Your task to perform on an android device: Open Chrome and go to settings Image 0: 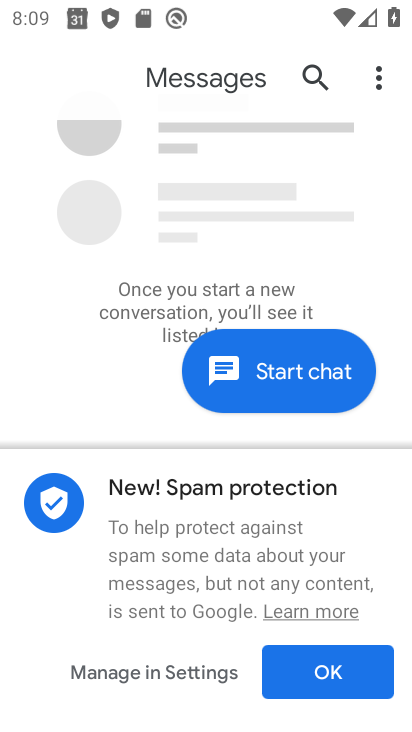
Step 0: press back button
Your task to perform on an android device: Open Chrome and go to settings Image 1: 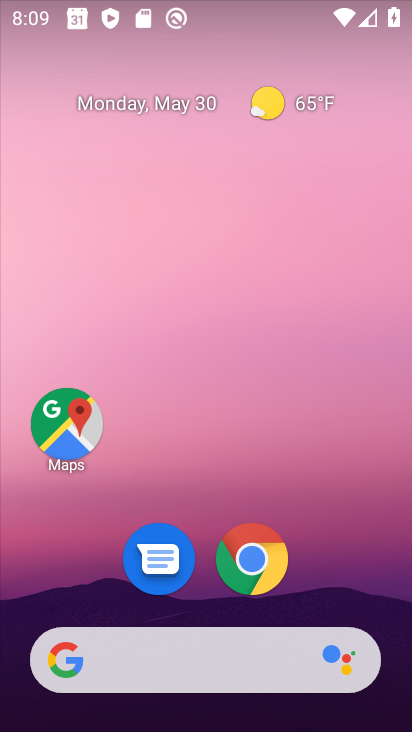
Step 1: drag from (346, 13) to (375, 454)
Your task to perform on an android device: Open Chrome and go to settings Image 2: 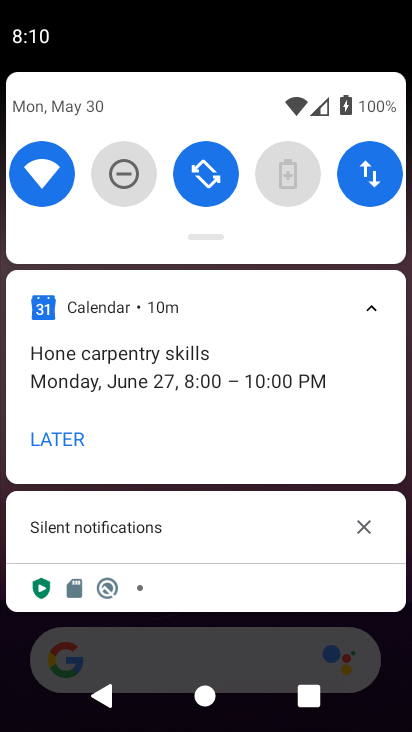
Step 2: drag from (185, 617) to (275, 74)
Your task to perform on an android device: Open Chrome and go to settings Image 3: 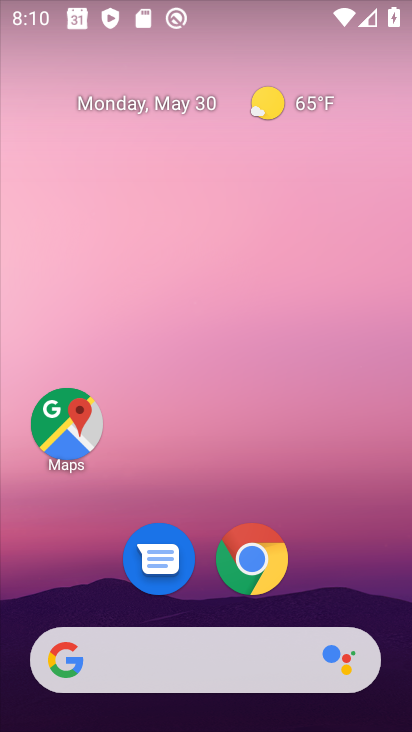
Step 3: click (251, 574)
Your task to perform on an android device: Open Chrome and go to settings Image 4: 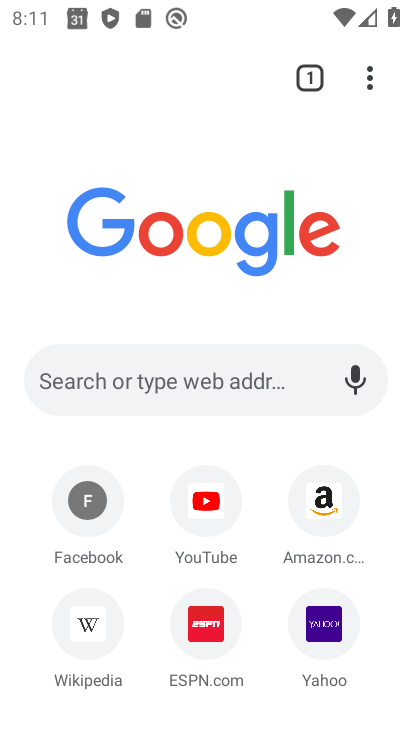
Step 4: task complete